Your task to perform on an android device: all mails in gmail Image 0: 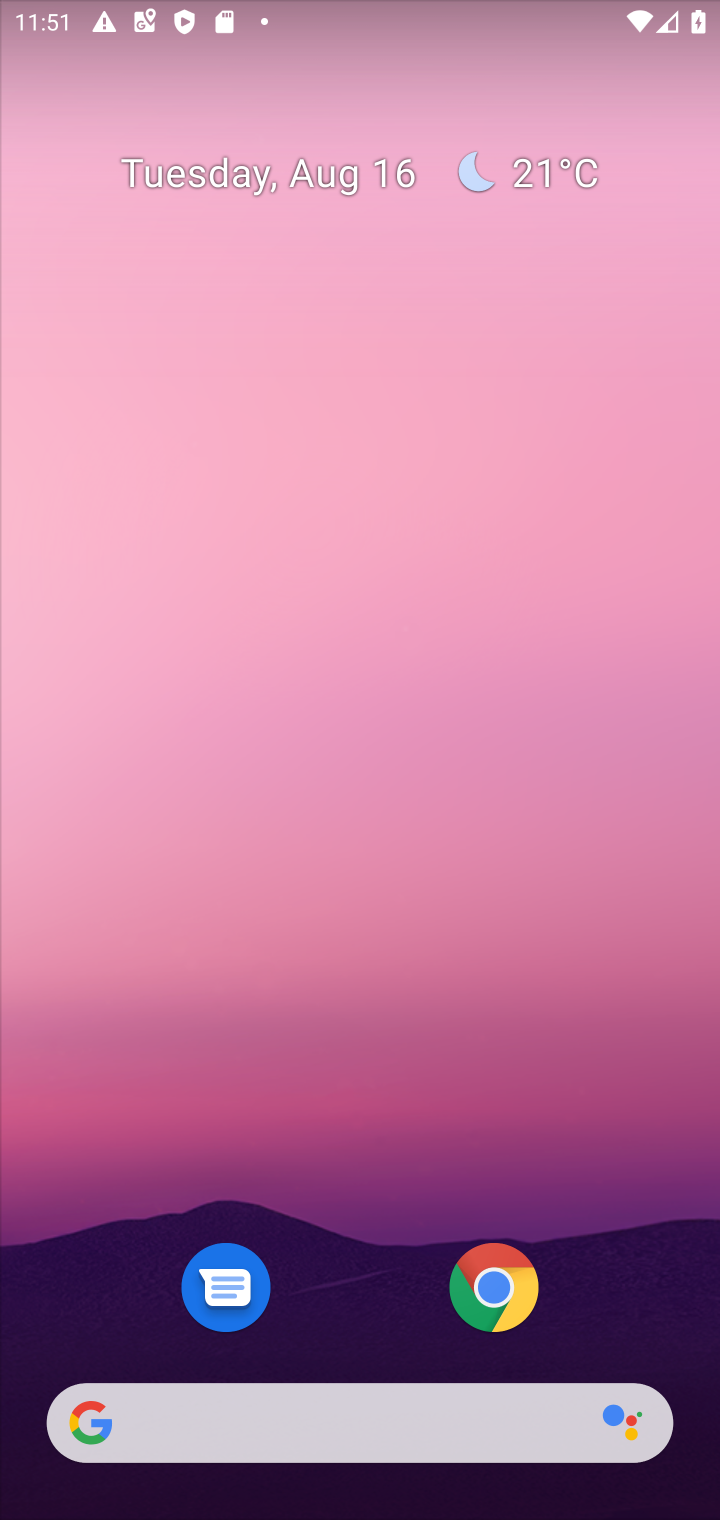
Step 0: drag from (655, 1057) to (505, 3)
Your task to perform on an android device: all mails in gmail Image 1: 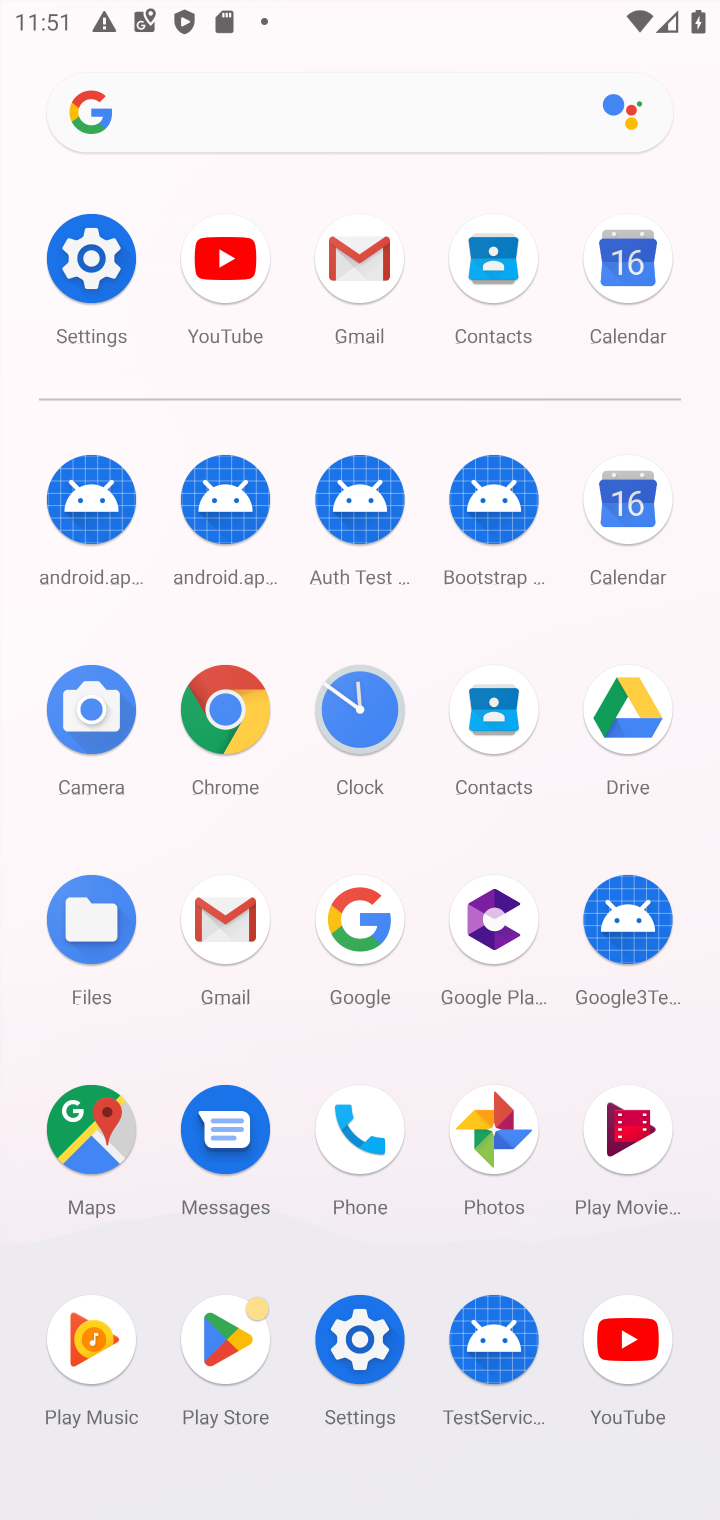
Step 1: click (220, 916)
Your task to perform on an android device: all mails in gmail Image 2: 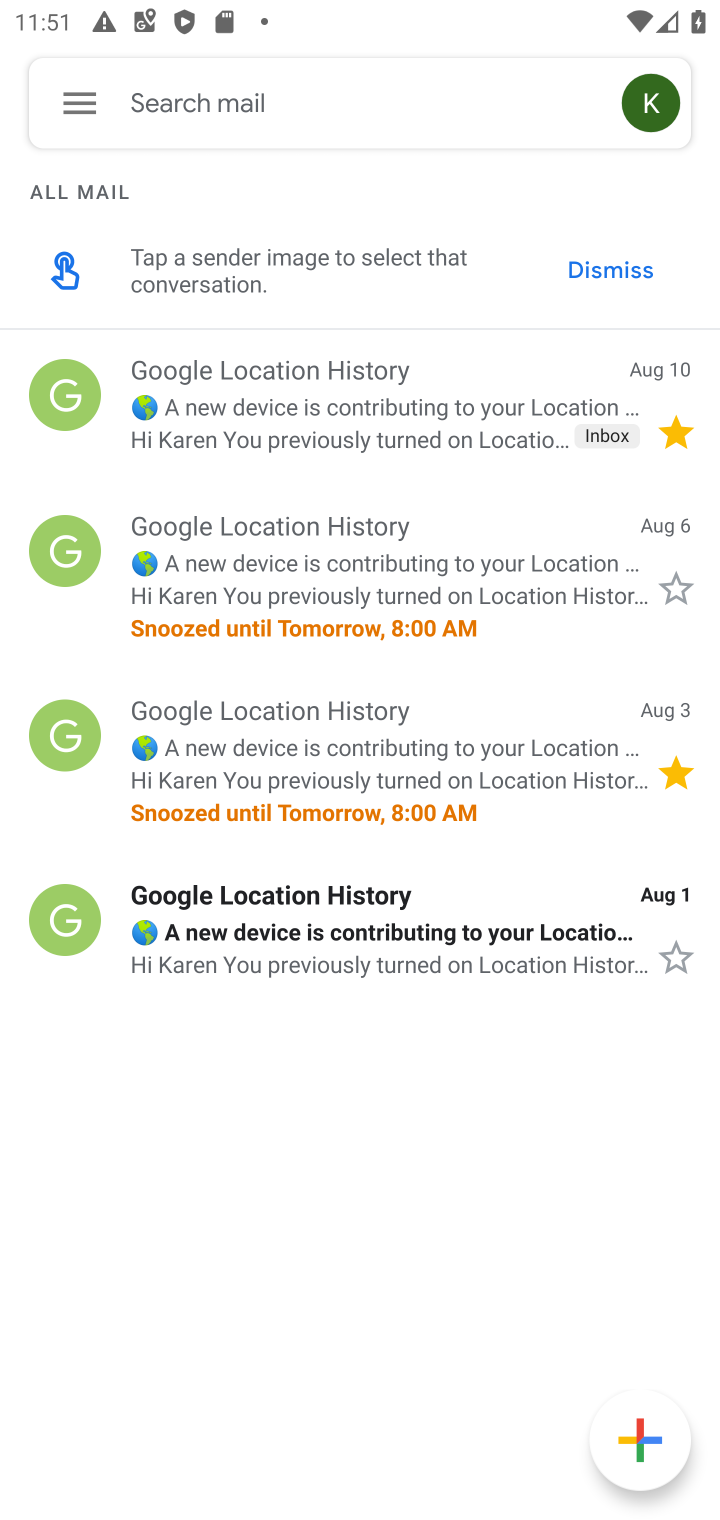
Step 2: click (62, 90)
Your task to perform on an android device: all mails in gmail Image 3: 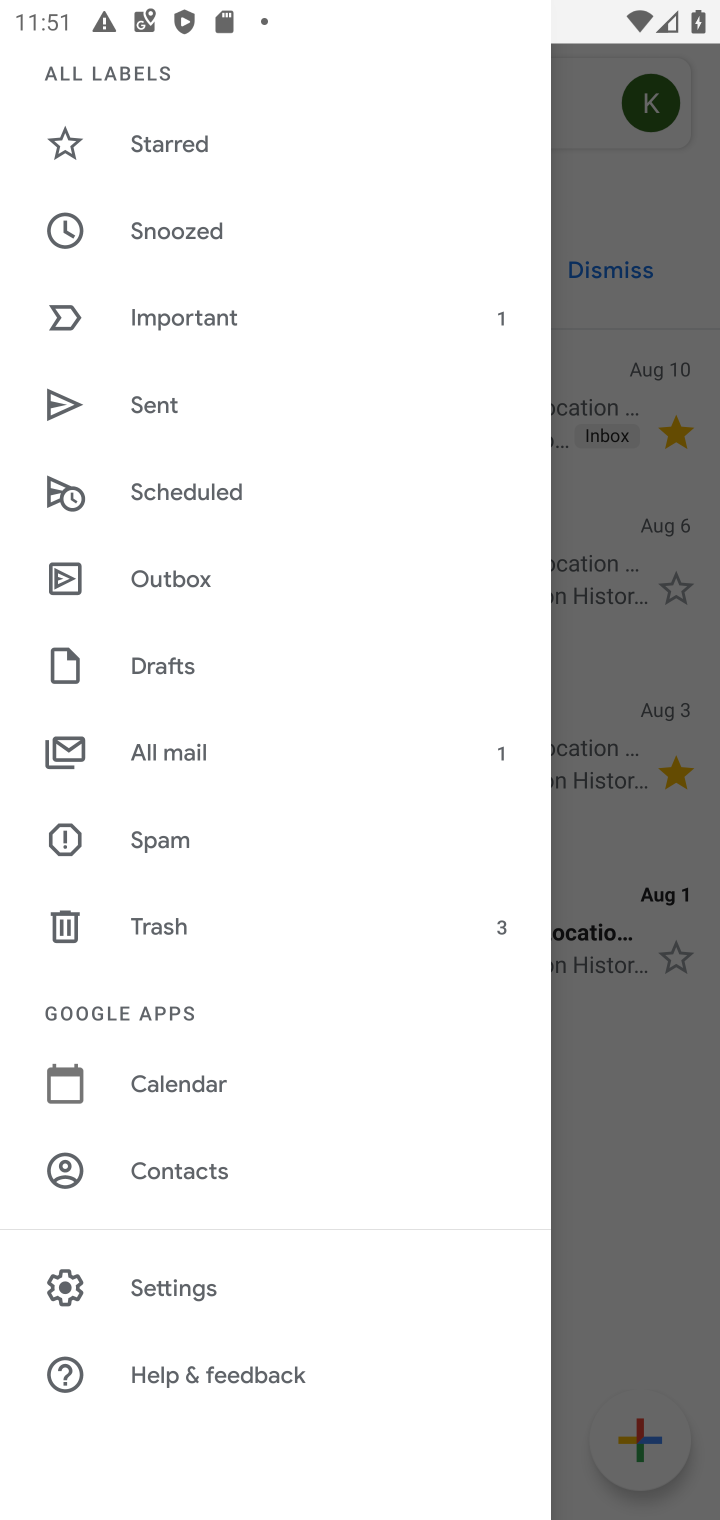
Step 3: click (186, 749)
Your task to perform on an android device: all mails in gmail Image 4: 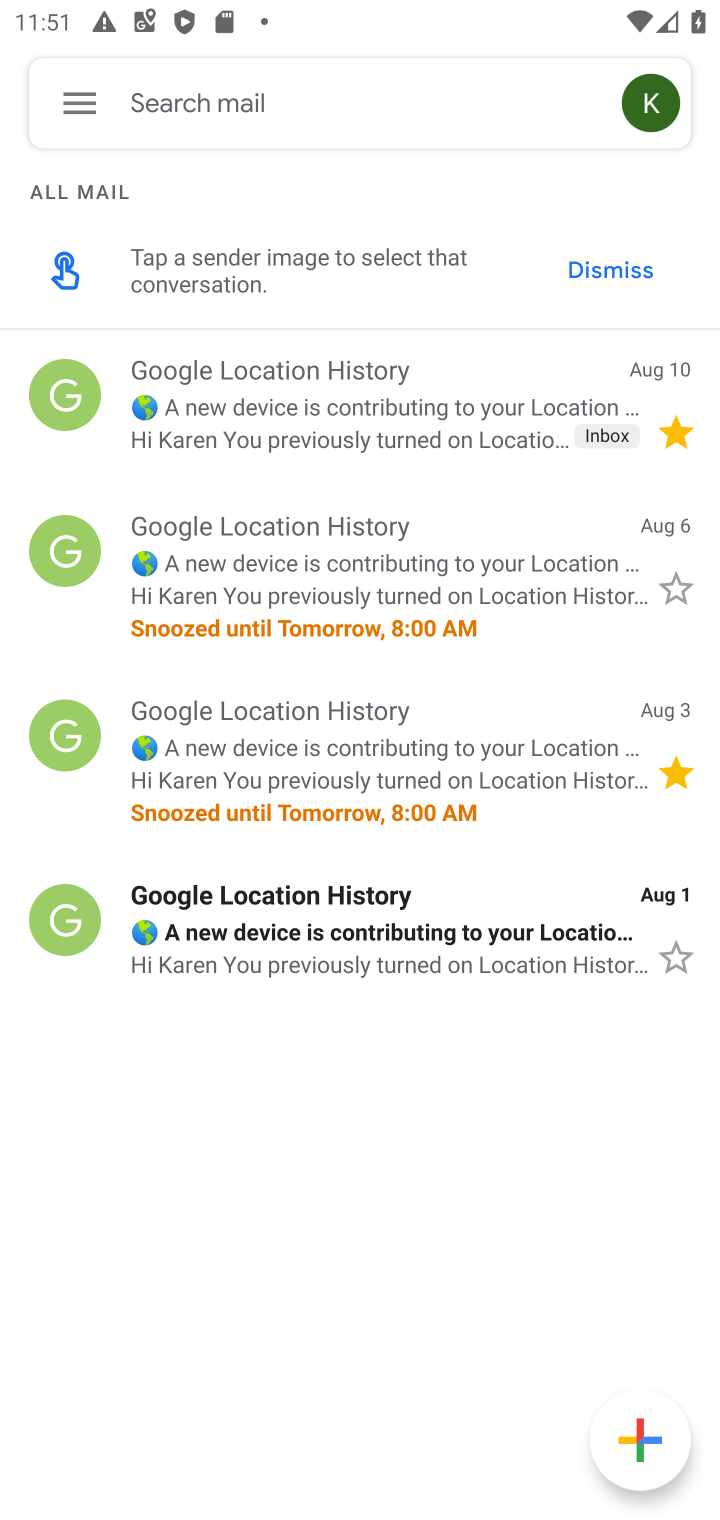
Step 4: task complete